Your task to perform on an android device: Open Android settings Image 0: 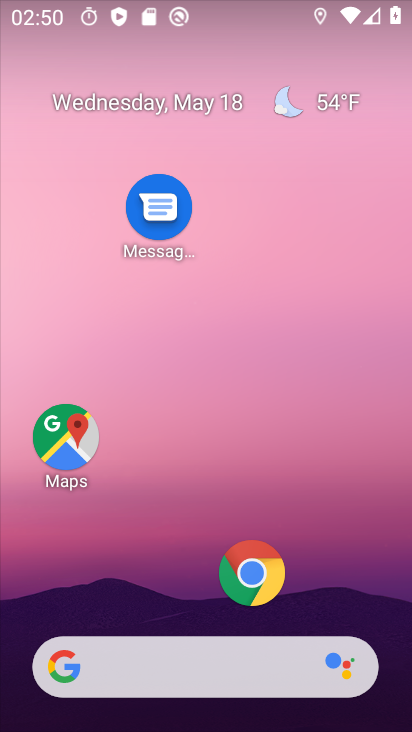
Step 0: drag from (186, 592) to (230, 207)
Your task to perform on an android device: Open Android settings Image 1: 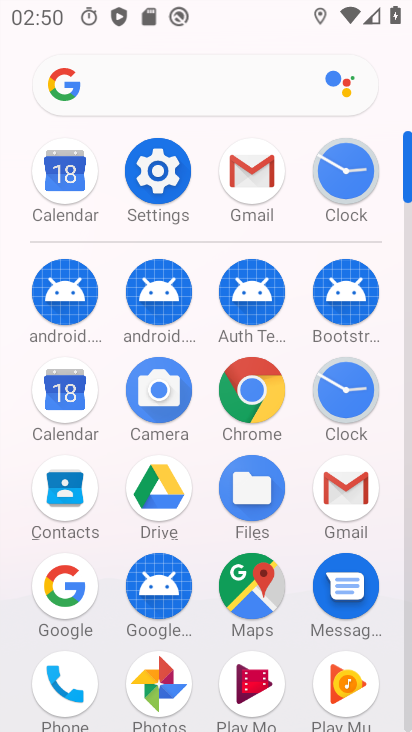
Step 1: click (180, 183)
Your task to perform on an android device: Open Android settings Image 2: 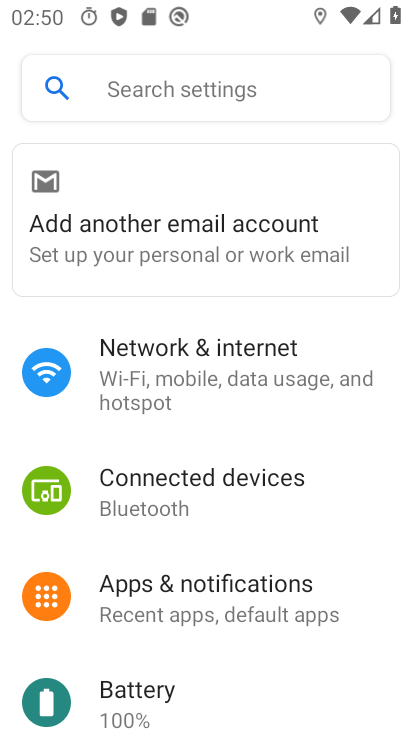
Step 2: drag from (227, 535) to (232, 261)
Your task to perform on an android device: Open Android settings Image 3: 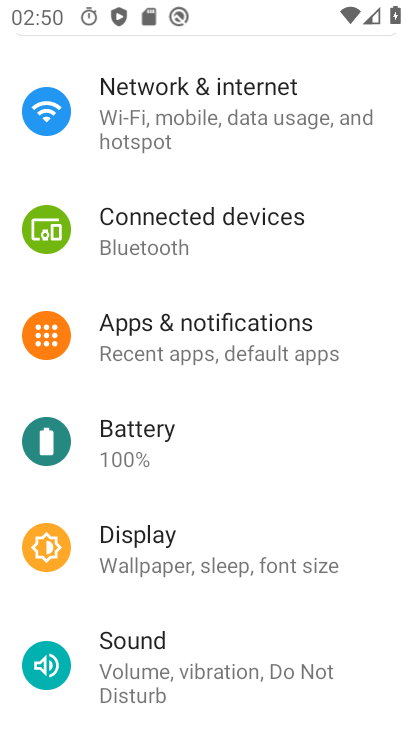
Step 3: click (262, 245)
Your task to perform on an android device: Open Android settings Image 4: 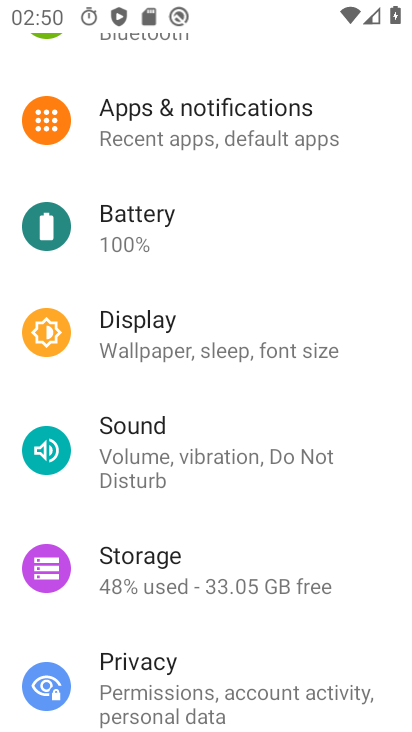
Step 4: task complete